Your task to perform on an android device: Open wifi settings Image 0: 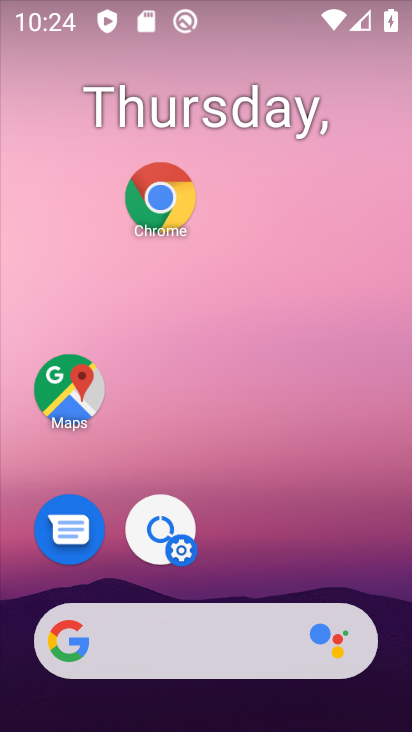
Step 0: drag from (199, 597) to (295, 2)
Your task to perform on an android device: Open wifi settings Image 1: 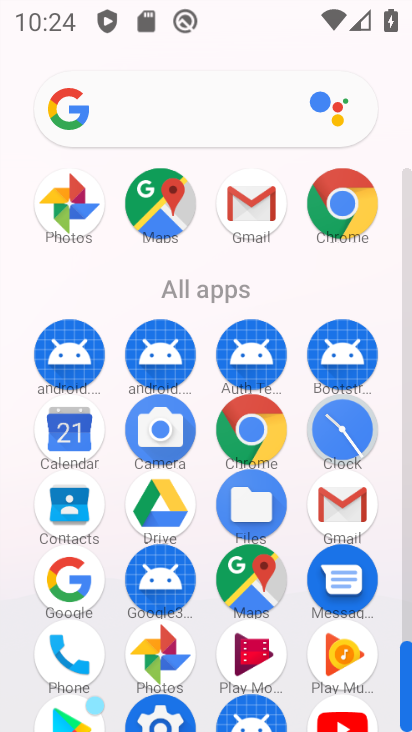
Step 1: drag from (205, 622) to (241, 239)
Your task to perform on an android device: Open wifi settings Image 2: 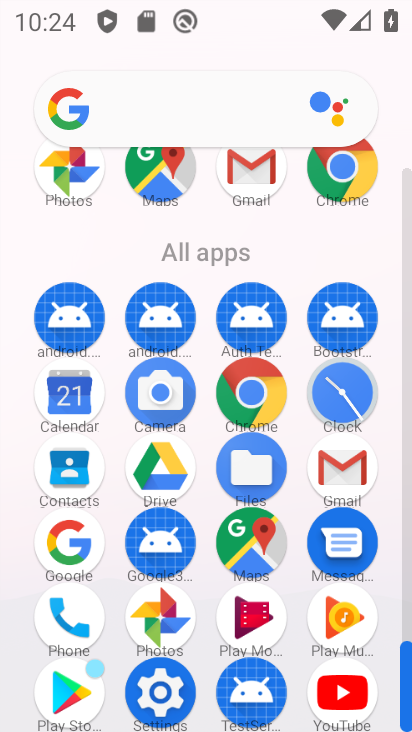
Step 2: click (166, 694)
Your task to perform on an android device: Open wifi settings Image 3: 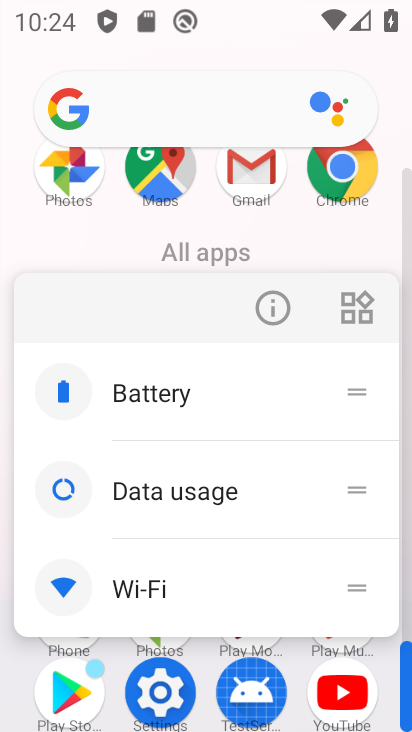
Step 3: click (155, 694)
Your task to perform on an android device: Open wifi settings Image 4: 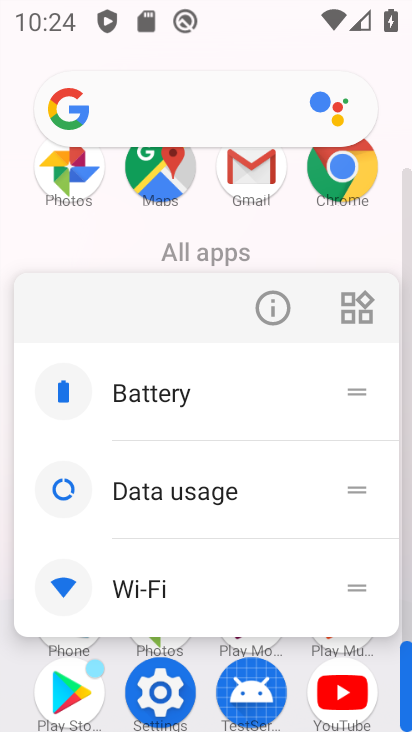
Step 4: click (135, 678)
Your task to perform on an android device: Open wifi settings Image 5: 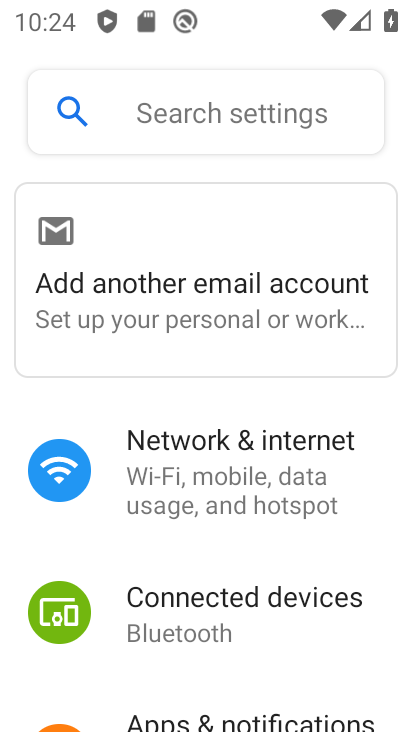
Step 5: click (166, 467)
Your task to perform on an android device: Open wifi settings Image 6: 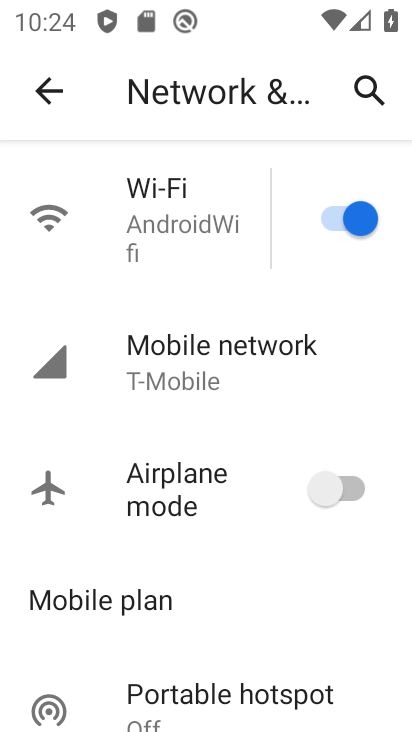
Step 6: click (138, 219)
Your task to perform on an android device: Open wifi settings Image 7: 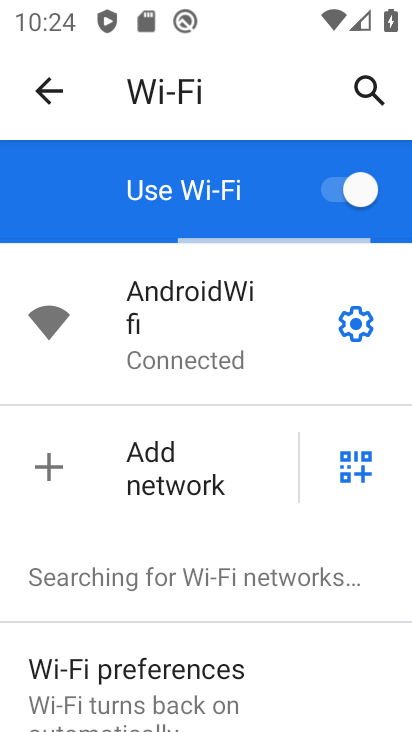
Step 7: task complete